Your task to perform on an android device: open the mobile data screen to see how much data has been used Image 0: 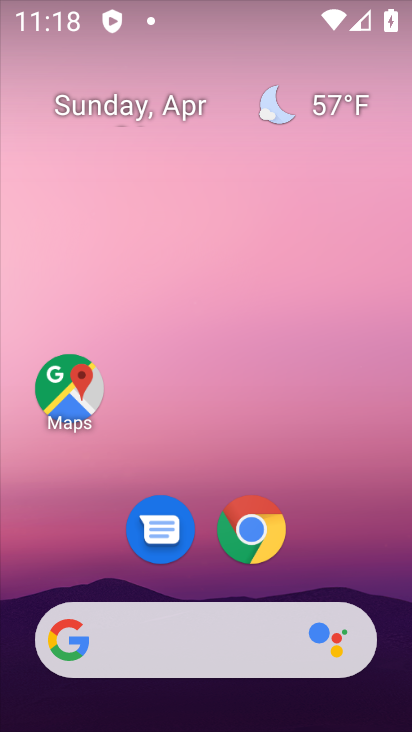
Step 0: drag from (349, 548) to (266, 44)
Your task to perform on an android device: open the mobile data screen to see how much data has been used Image 1: 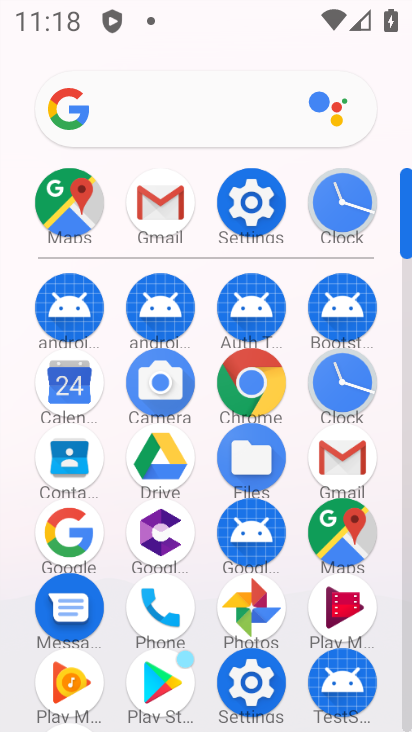
Step 1: click (253, 205)
Your task to perform on an android device: open the mobile data screen to see how much data has been used Image 2: 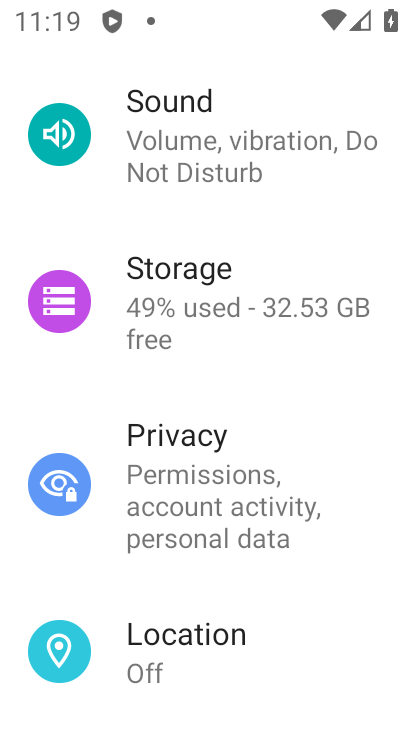
Step 2: drag from (284, 268) to (323, 704)
Your task to perform on an android device: open the mobile data screen to see how much data has been used Image 3: 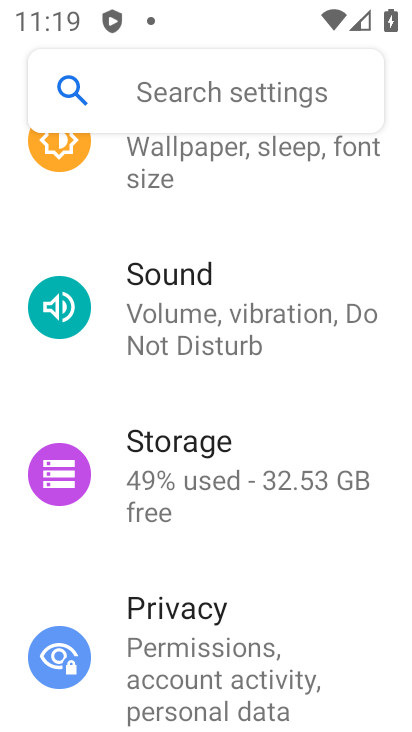
Step 3: drag from (299, 232) to (300, 584)
Your task to perform on an android device: open the mobile data screen to see how much data has been used Image 4: 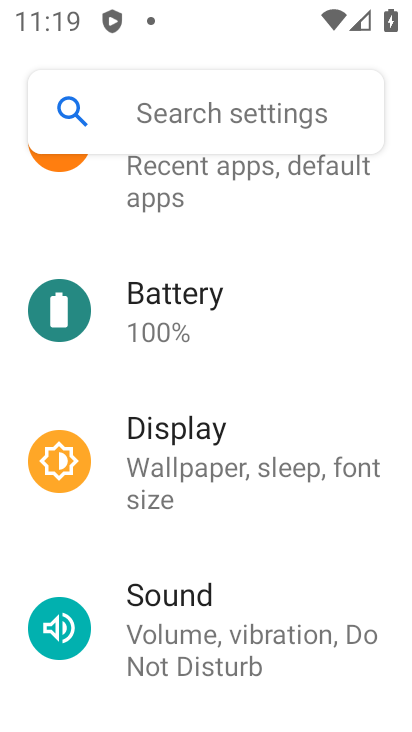
Step 4: drag from (268, 239) to (245, 676)
Your task to perform on an android device: open the mobile data screen to see how much data has been used Image 5: 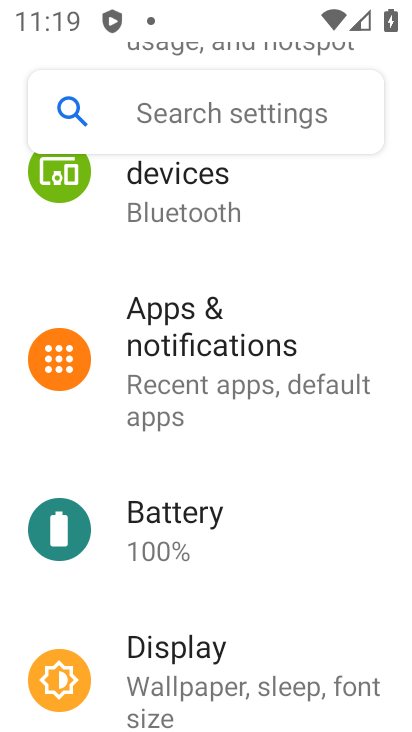
Step 5: drag from (310, 217) to (309, 637)
Your task to perform on an android device: open the mobile data screen to see how much data has been used Image 6: 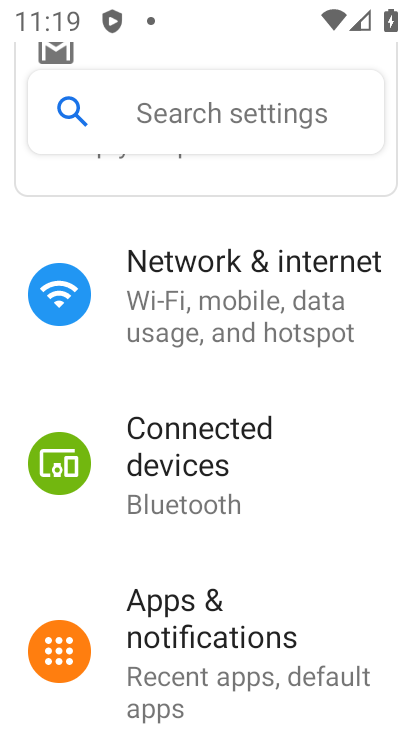
Step 6: click (257, 294)
Your task to perform on an android device: open the mobile data screen to see how much data has been used Image 7: 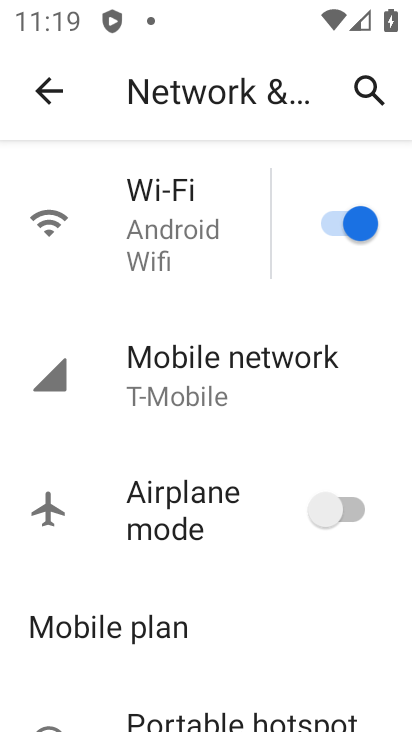
Step 7: click (217, 370)
Your task to perform on an android device: open the mobile data screen to see how much data has been used Image 8: 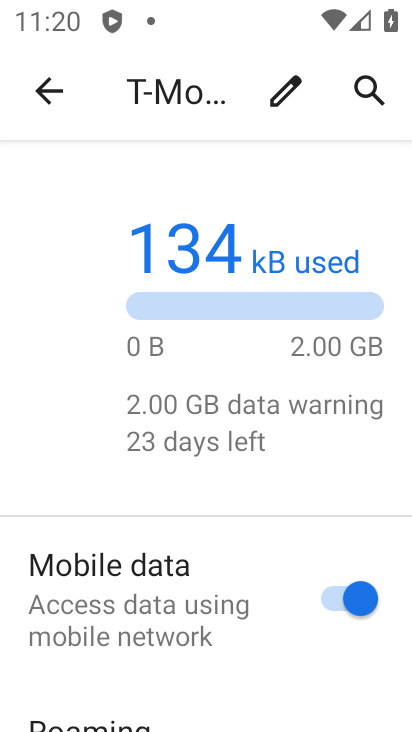
Step 8: task complete